Your task to perform on an android device: install app "Roku - Official Remote Control" Image 0: 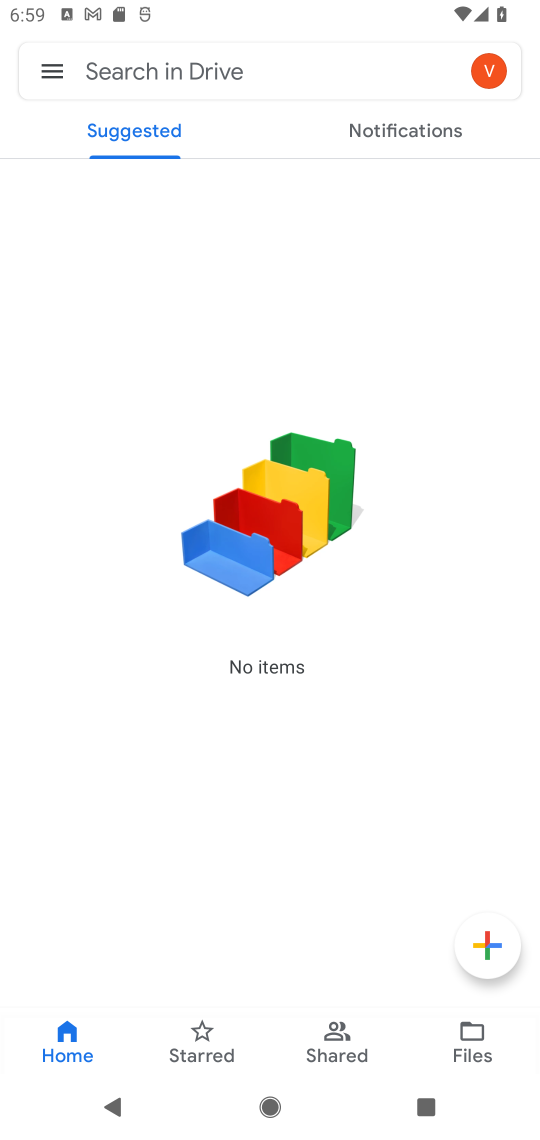
Step 0: press back button
Your task to perform on an android device: install app "Roku - Official Remote Control" Image 1: 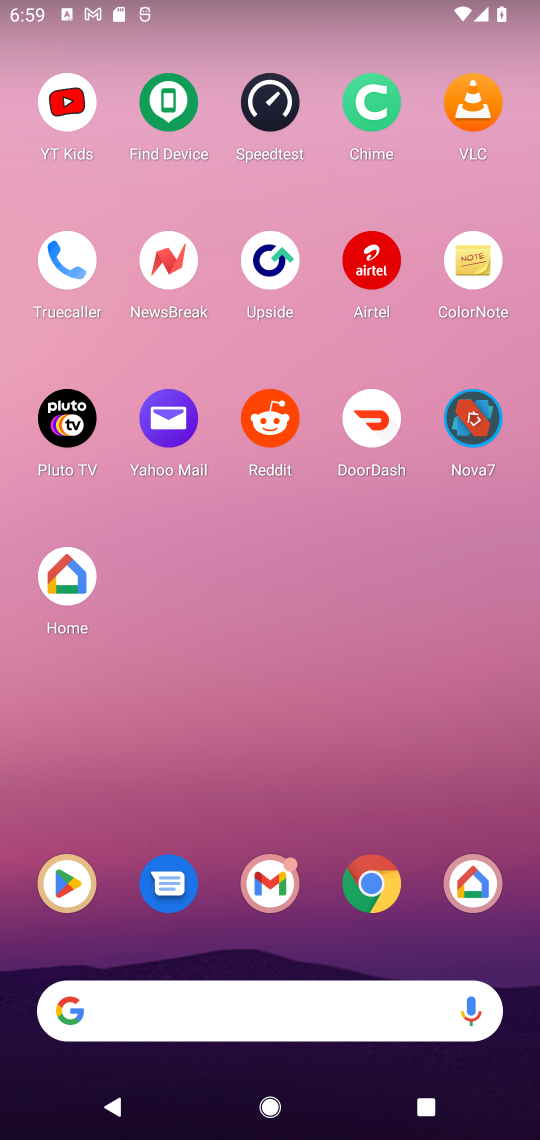
Step 1: click (68, 885)
Your task to perform on an android device: install app "Roku - Official Remote Control" Image 2: 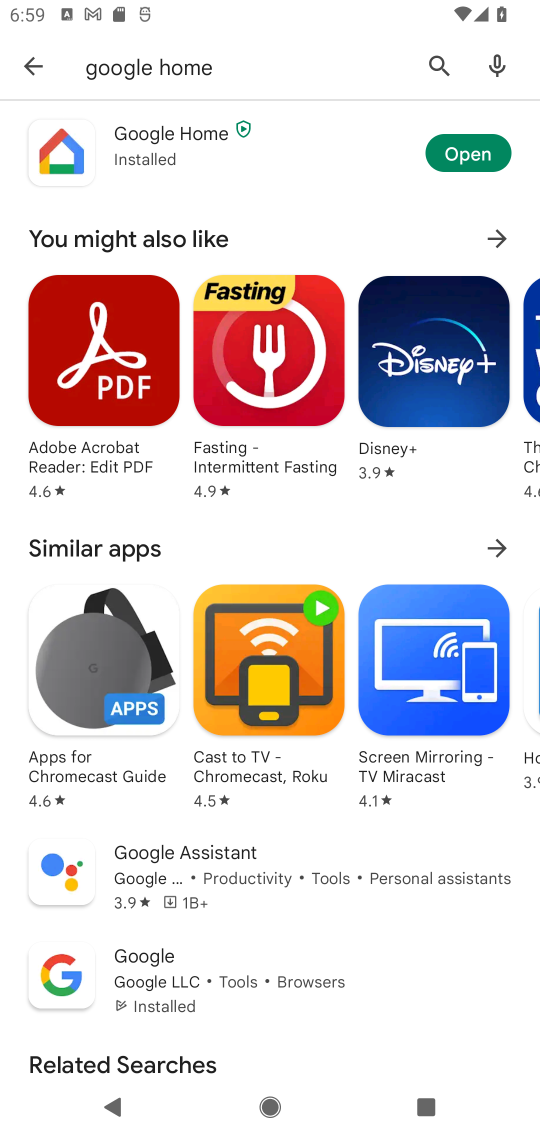
Step 2: click (441, 46)
Your task to perform on an android device: install app "Roku - Official Remote Control" Image 3: 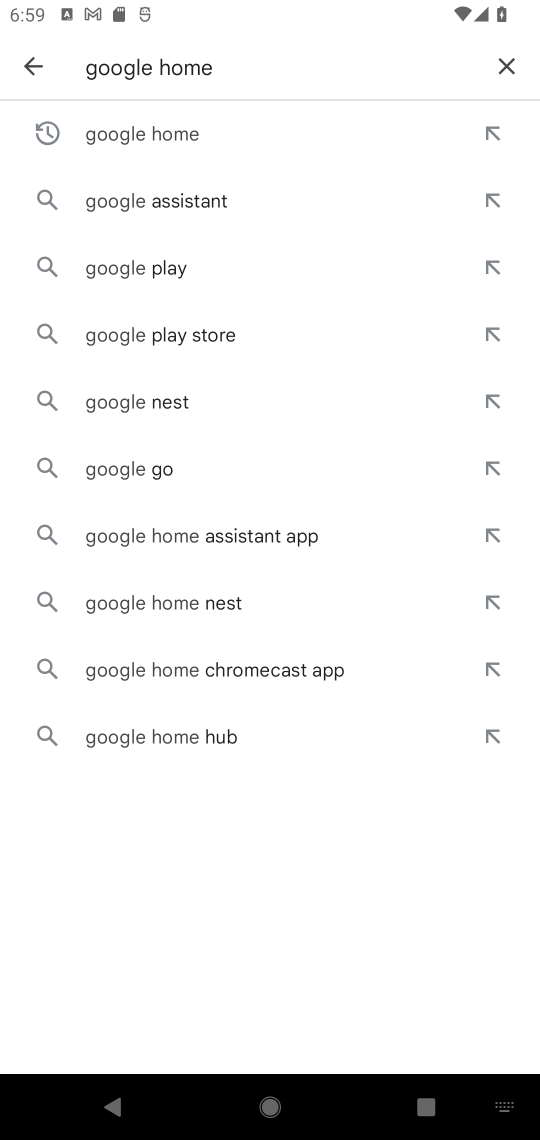
Step 3: click (498, 64)
Your task to perform on an android device: install app "Roku - Official Remote Control" Image 4: 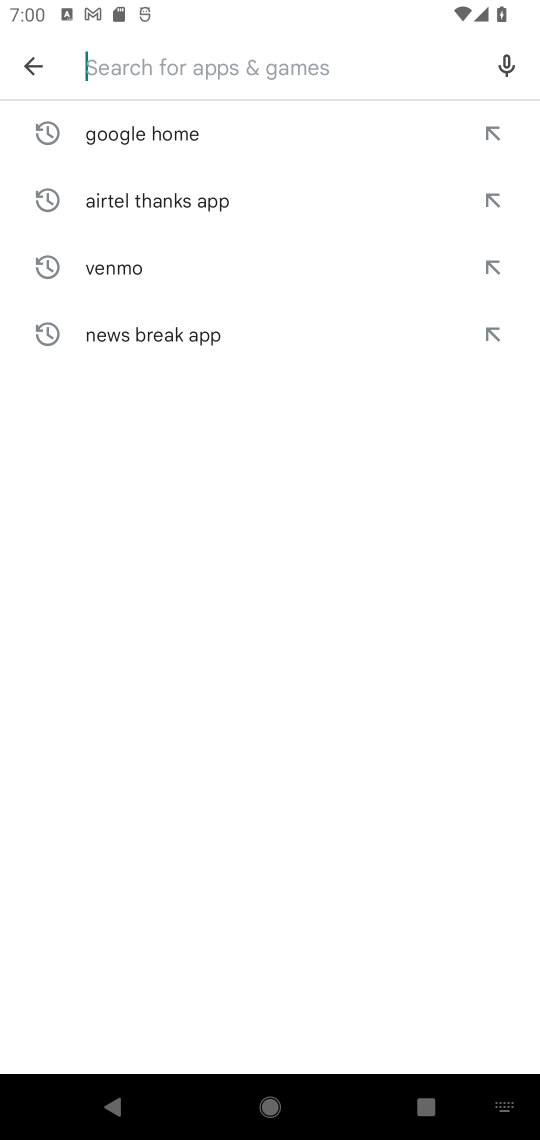
Step 4: click (287, 75)
Your task to perform on an android device: install app "Roku - Official Remote Control" Image 5: 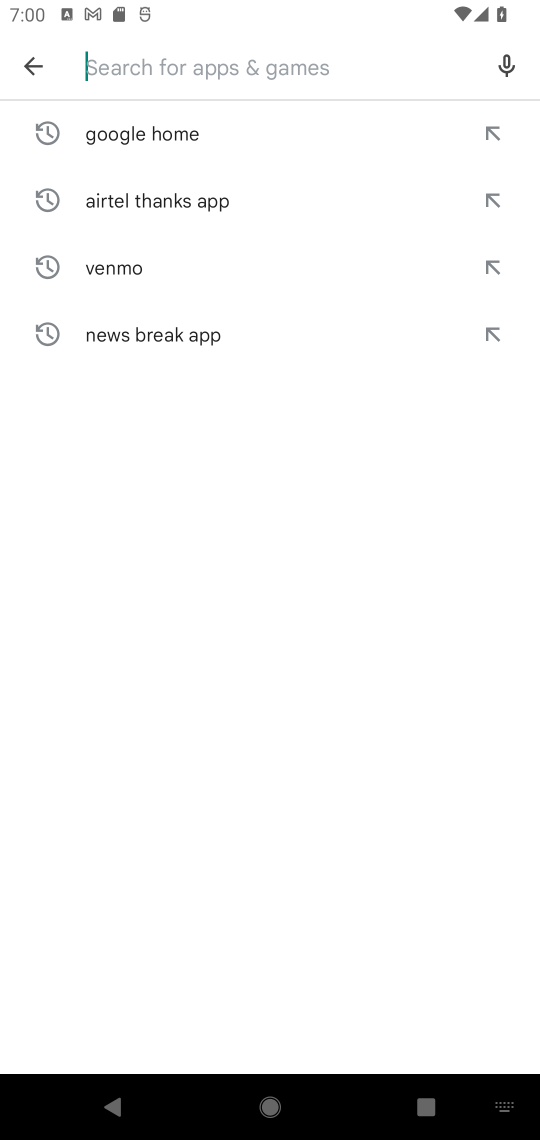
Step 5: type "roku"
Your task to perform on an android device: install app "Roku - Official Remote Control" Image 6: 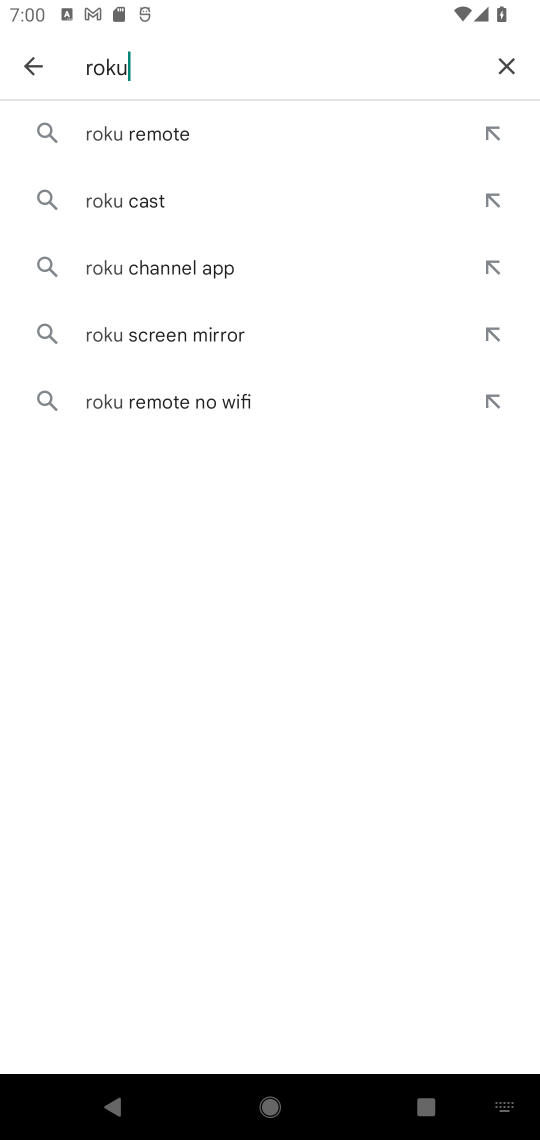
Step 6: click (183, 124)
Your task to perform on an android device: install app "Roku - Official Remote Control" Image 7: 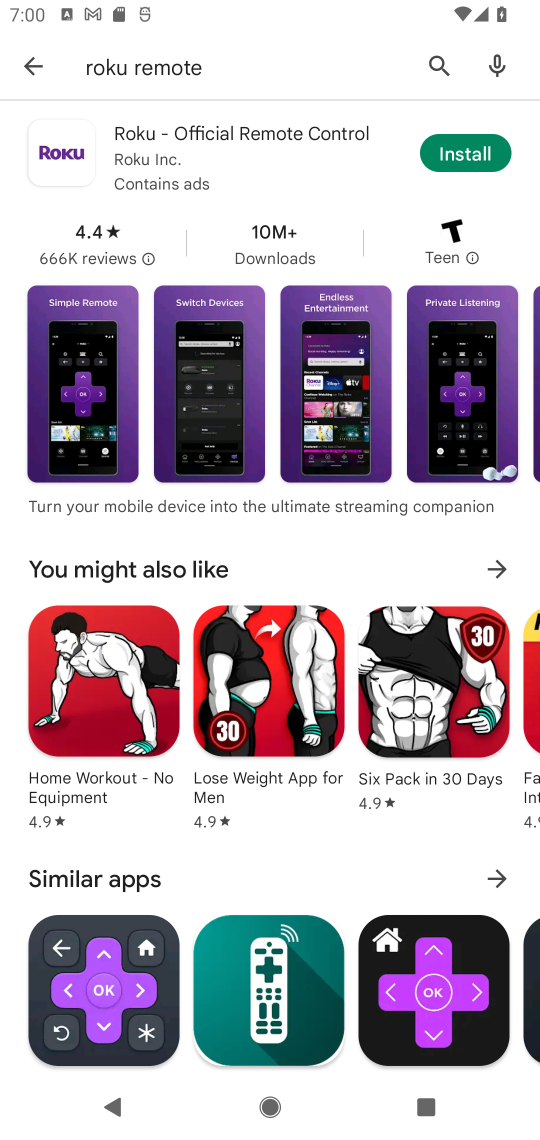
Step 7: click (483, 165)
Your task to perform on an android device: install app "Roku - Official Remote Control" Image 8: 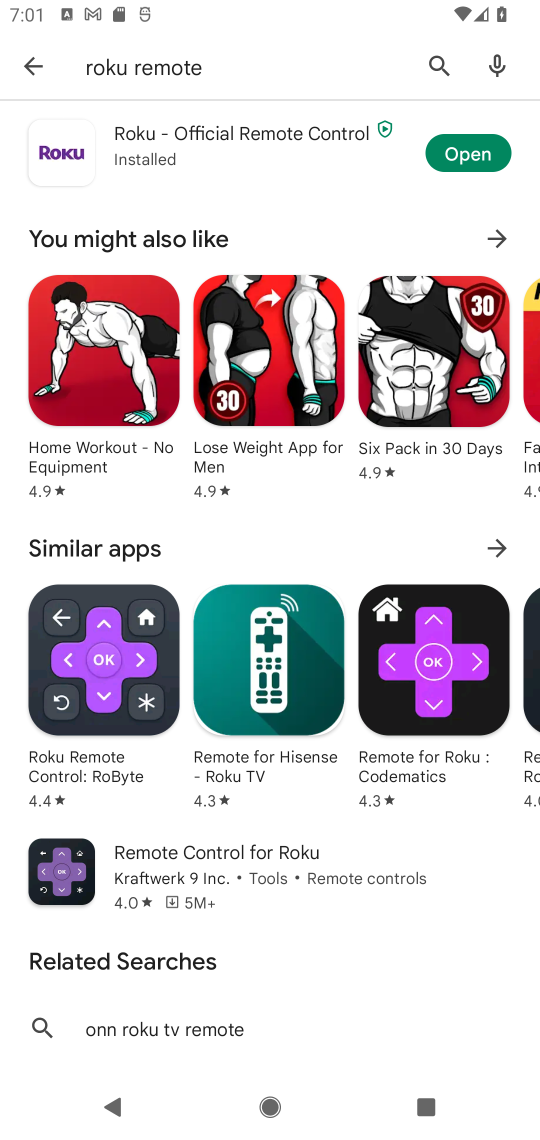
Step 8: task complete